Your task to perform on an android device: Open the calendar app, open the side menu, and click the "Day" option Image 0: 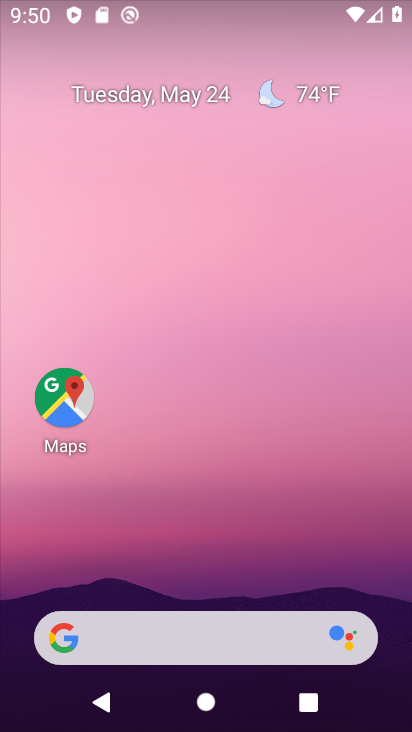
Step 0: drag from (209, 591) to (154, 53)
Your task to perform on an android device: Open the calendar app, open the side menu, and click the "Day" option Image 1: 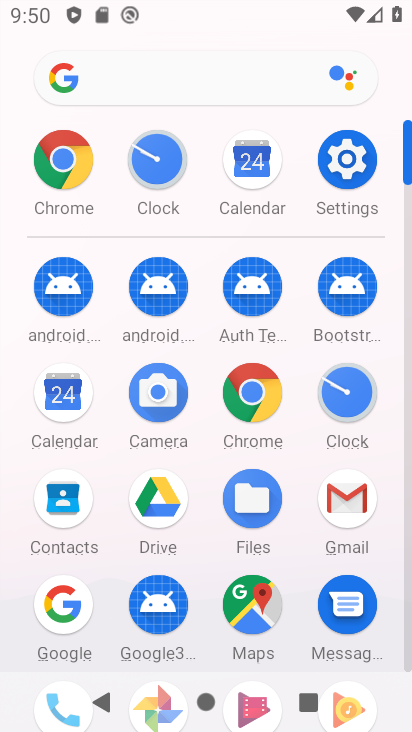
Step 1: click (54, 424)
Your task to perform on an android device: Open the calendar app, open the side menu, and click the "Day" option Image 2: 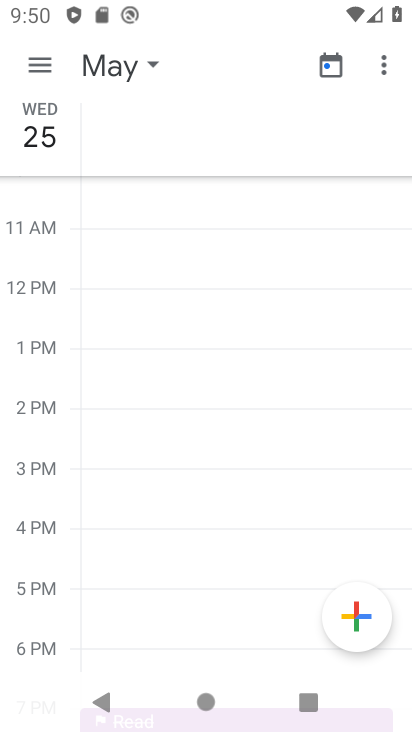
Step 2: click (33, 71)
Your task to perform on an android device: Open the calendar app, open the side menu, and click the "Day" option Image 3: 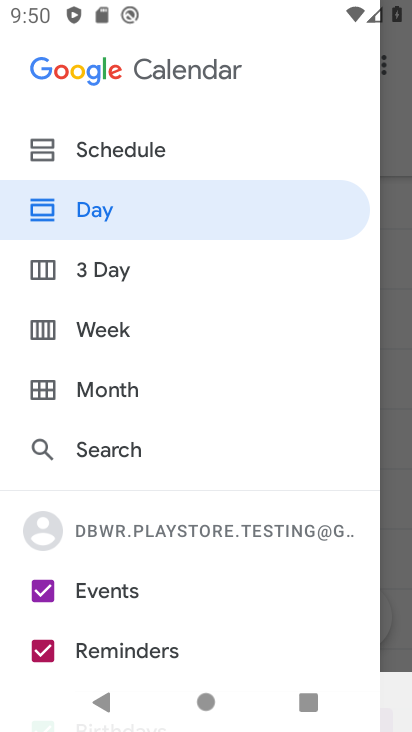
Step 3: click (78, 198)
Your task to perform on an android device: Open the calendar app, open the side menu, and click the "Day" option Image 4: 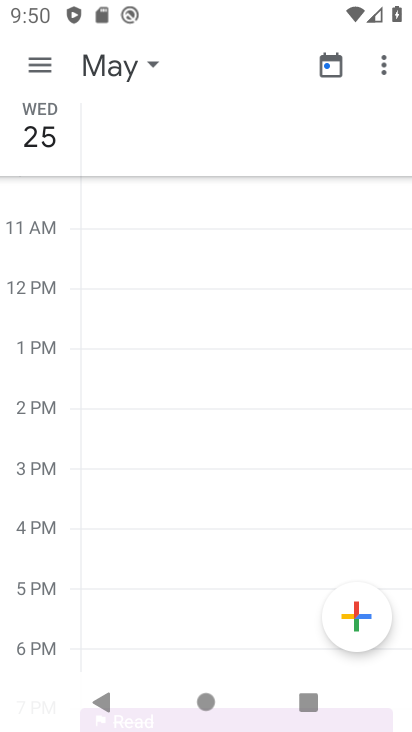
Step 4: task complete